Your task to perform on an android device: Open calendar and show me the third week of next month Image 0: 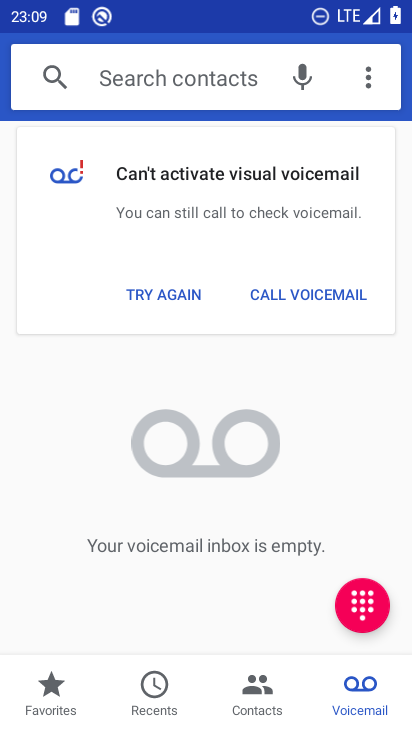
Step 0: press home button
Your task to perform on an android device: Open calendar and show me the third week of next month Image 1: 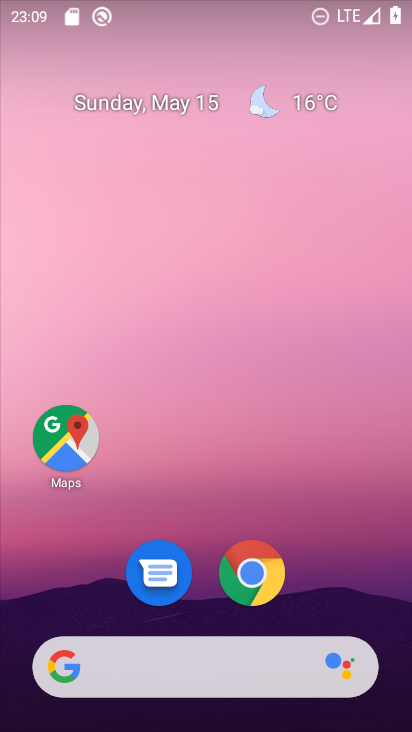
Step 1: drag from (335, 583) to (382, 86)
Your task to perform on an android device: Open calendar and show me the third week of next month Image 2: 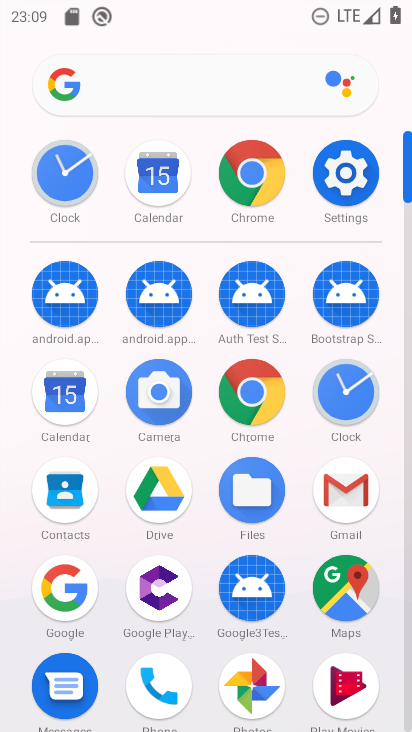
Step 2: click (69, 422)
Your task to perform on an android device: Open calendar and show me the third week of next month Image 3: 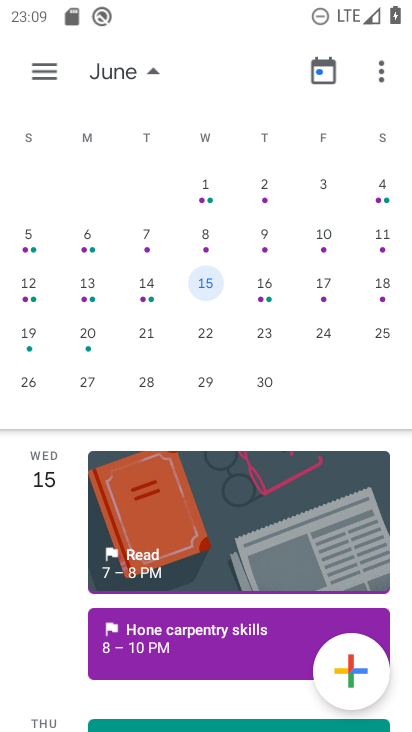
Step 3: task complete